Your task to perform on an android device: toggle translation in the chrome app Image 0: 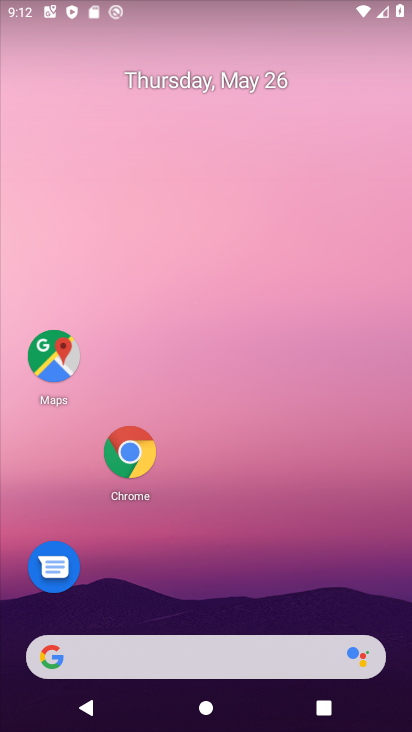
Step 0: click (138, 459)
Your task to perform on an android device: toggle translation in the chrome app Image 1: 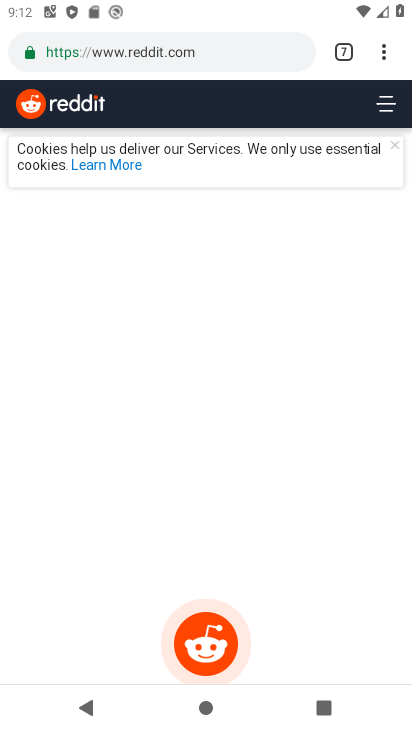
Step 1: drag from (382, 53) to (222, 624)
Your task to perform on an android device: toggle translation in the chrome app Image 2: 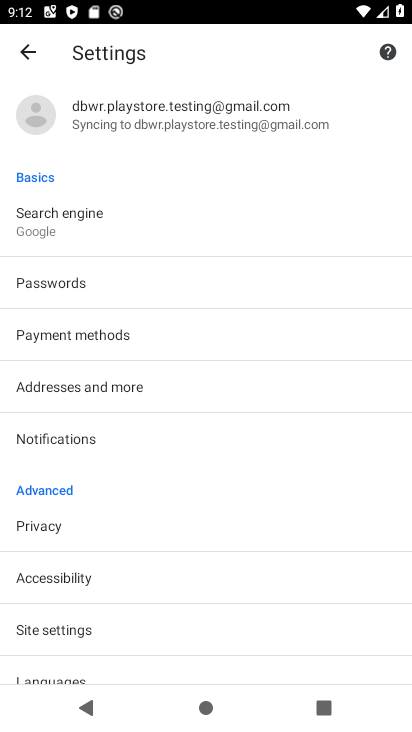
Step 2: drag from (196, 610) to (318, 150)
Your task to perform on an android device: toggle translation in the chrome app Image 3: 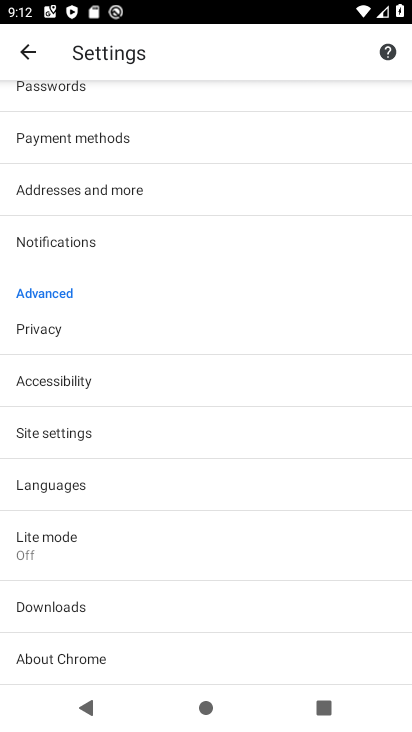
Step 3: click (97, 479)
Your task to perform on an android device: toggle translation in the chrome app Image 4: 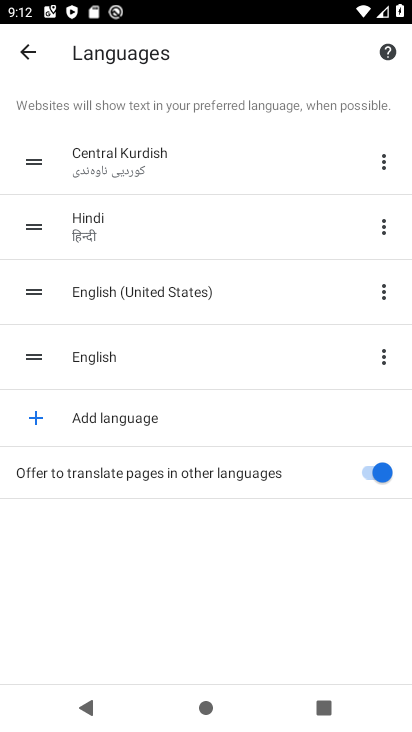
Step 4: click (367, 475)
Your task to perform on an android device: toggle translation in the chrome app Image 5: 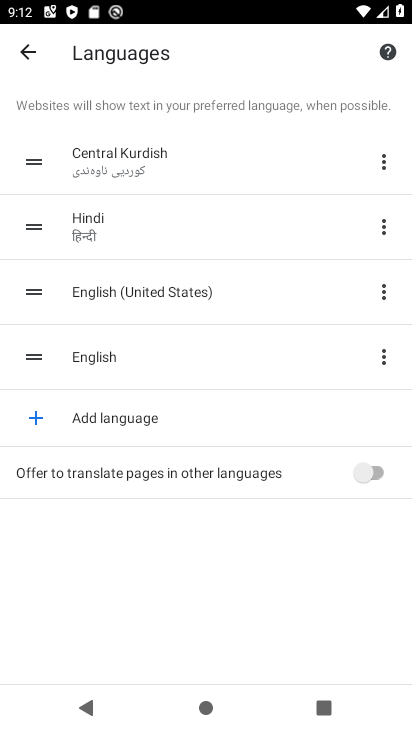
Step 5: task complete